Your task to perform on an android device: empty trash in the gmail app Image 0: 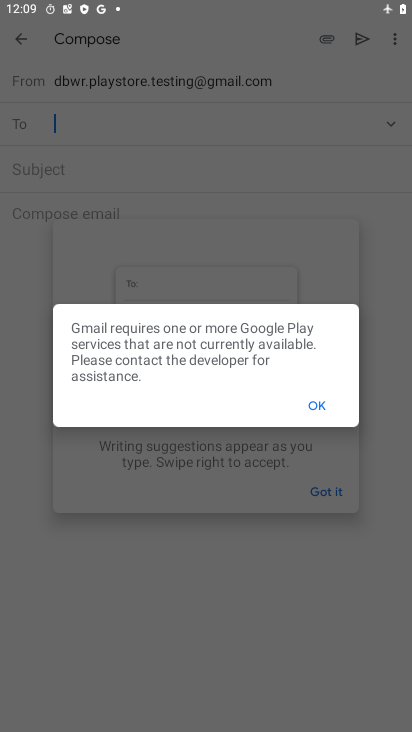
Step 0: click (321, 392)
Your task to perform on an android device: empty trash in the gmail app Image 1: 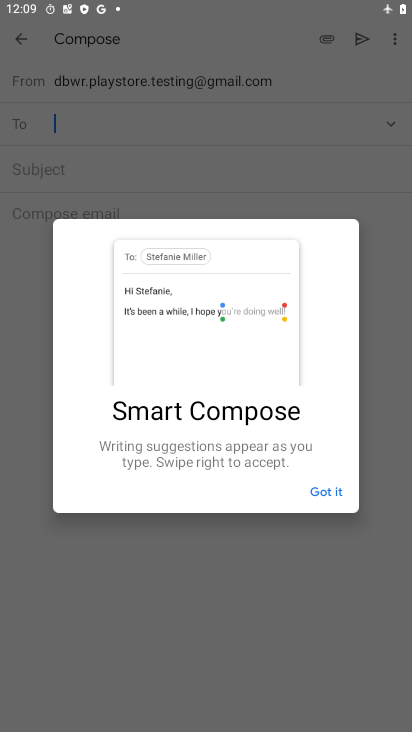
Step 1: press home button
Your task to perform on an android device: empty trash in the gmail app Image 2: 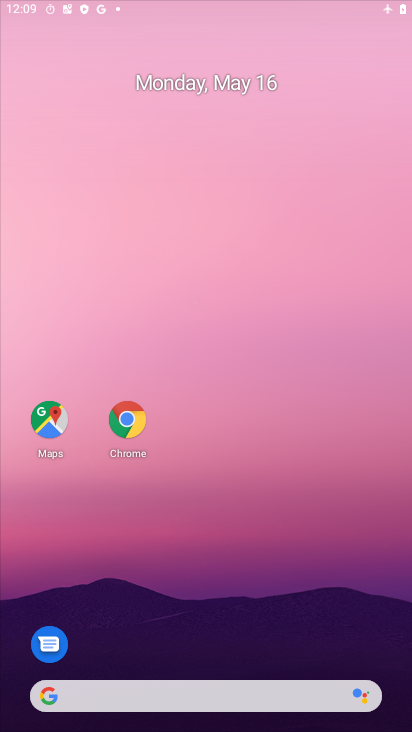
Step 2: drag from (175, 585) to (194, 435)
Your task to perform on an android device: empty trash in the gmail app Image 3: 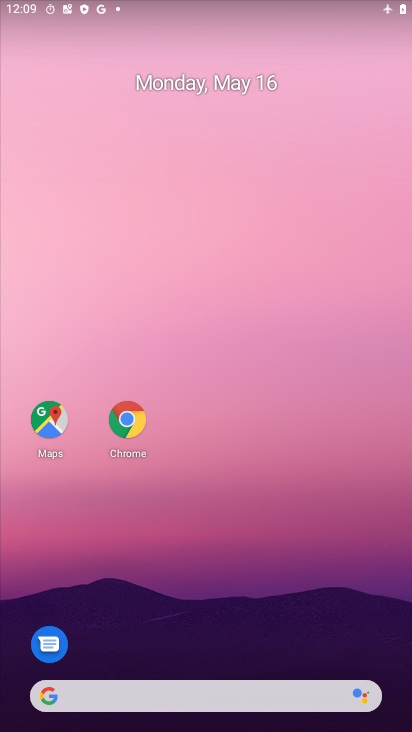
Step 3: drag from (226, 631) to (248, 142)
Your task to perform on an android device: empty trash in the gmail app Image 4: 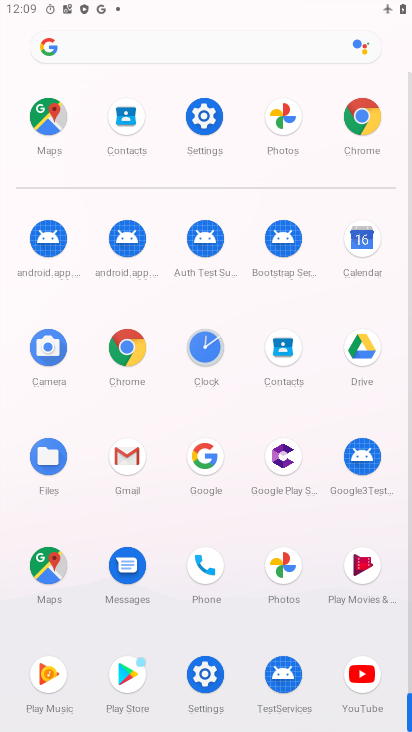
Step 4: click (110, 475)
Your task to perform on an android device: empty trash in the gmail app Image 5: 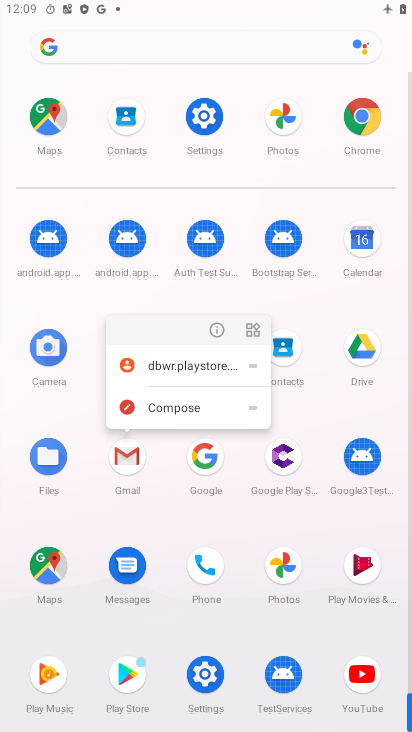
Step 5: click (195, 357)
Your task to perform on an android device: empty trash in the gmail app Image 6: 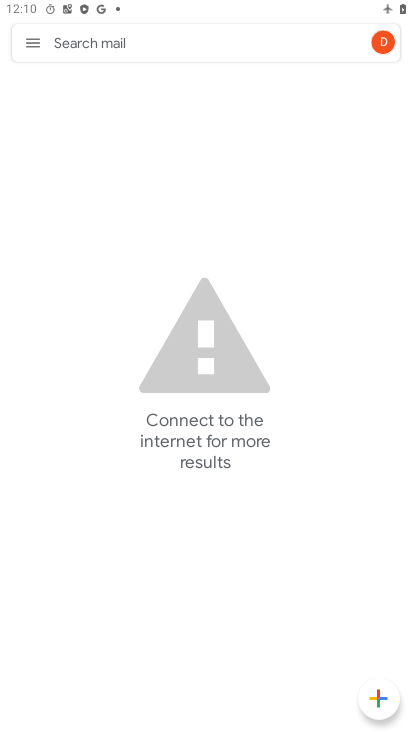
Step 6: click (32, 46)
Your task to perform on an android device: empty trash in the gmail app Image 7: 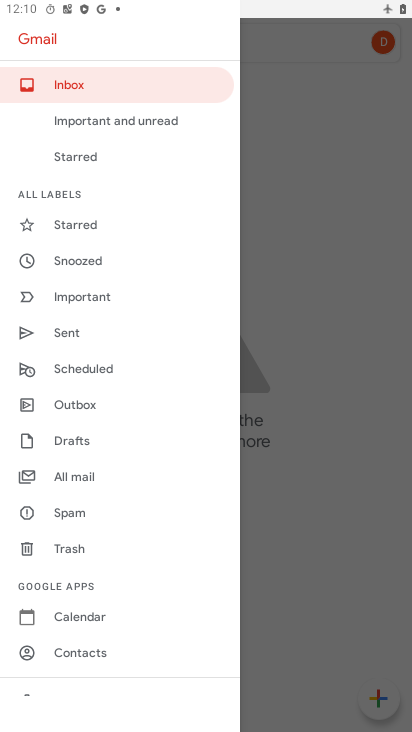
Step 7: click (66, 560)
Your task to perform on an android device: empty trash in the gmail app Image 8: 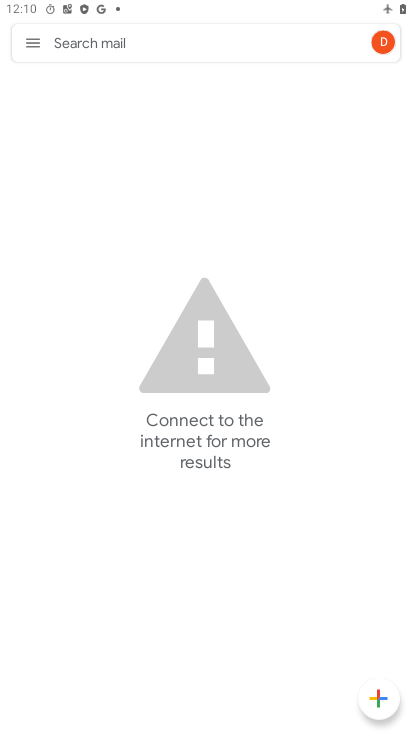
Step 8: click (31, 52)
Your task to perform on an android device: empty trash in the gmail app Image 9: 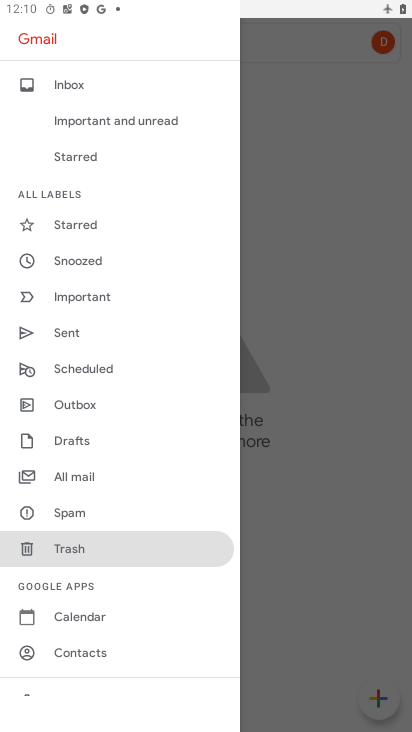
Step 9: click (66, 543)
Your task to perform on an android device: empty trash in the gmail app Image 10: 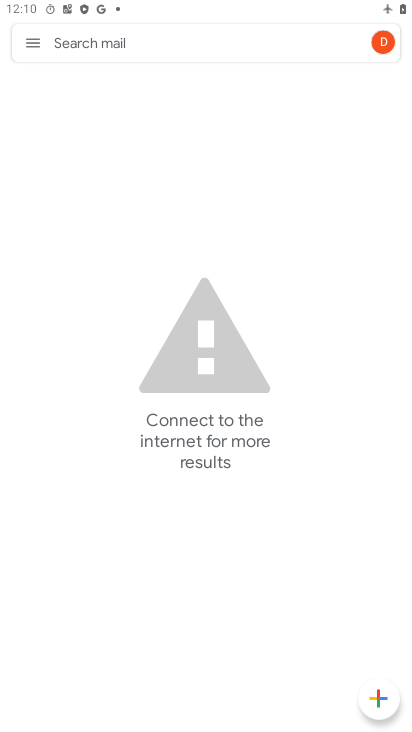
Step 10: task complete